Your task to perform on an android device: turn on the 24-hour format for clock Image 0: 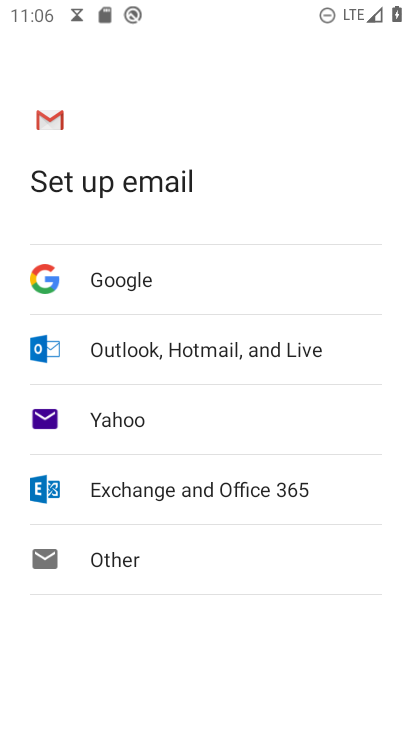
Step 0: press home button
Your task to perform on an android device: turn on the 24-hour format for clock Image 1: 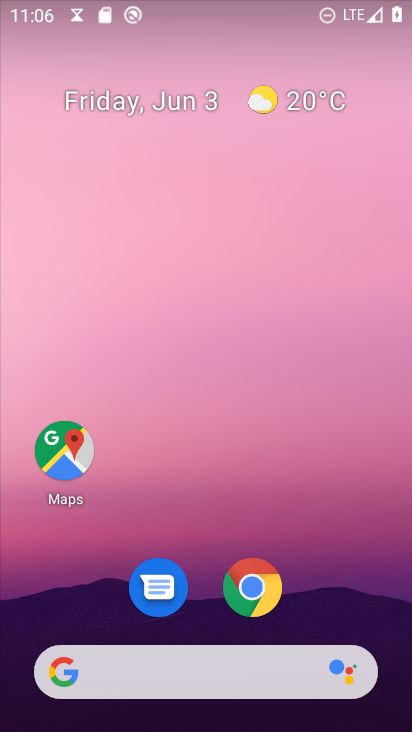
Step 1: drag from (351, 559) to (148, 29)
Your task to perform on an android device: turn on the 24-hour format for clock Image 2: 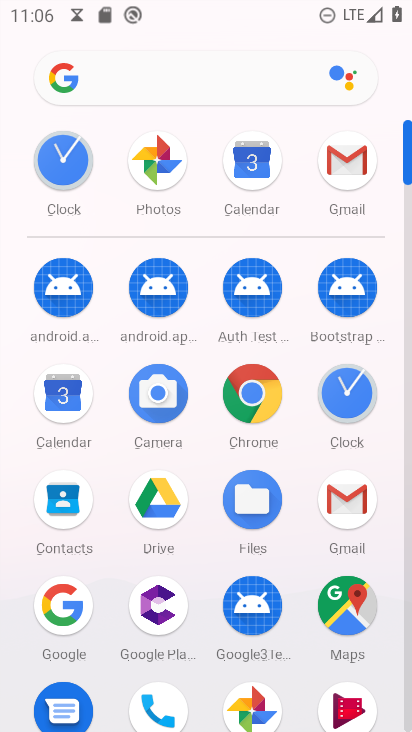
Step 2: click (339, 374)
Your task to perform on an android device: turn on the 24-hour format for clock Image 3: 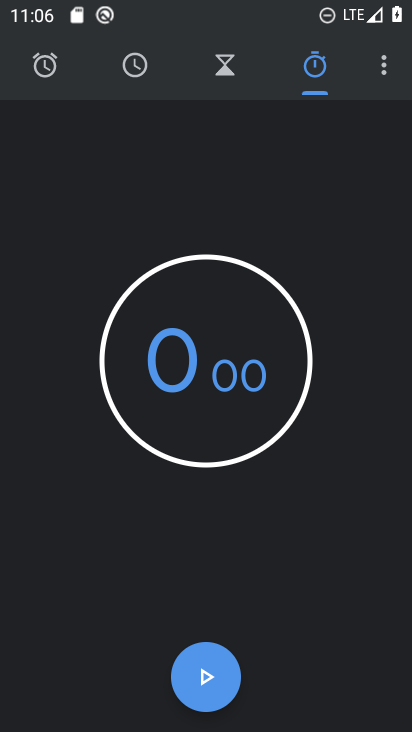
Step 3: click (383, 74)
Your task to perform on an android device: turn on the 24-hour format for clock Image 4: 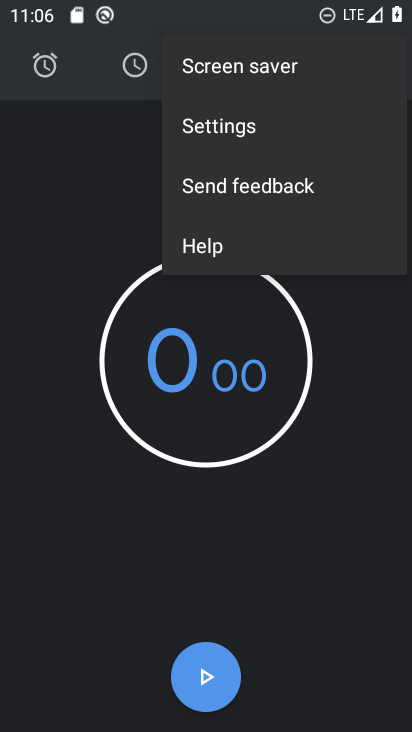
Step 4: click (260, 146)
Your task to perform on an android device: turn on the 24-hour format for clock Image 5: 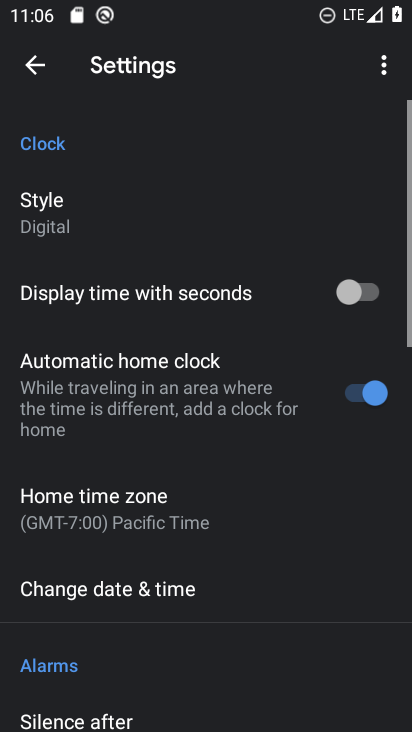
Step 5: click (189, 559)
Your task to perform on an android device: turn on the 24-hour format for clock Image 6: 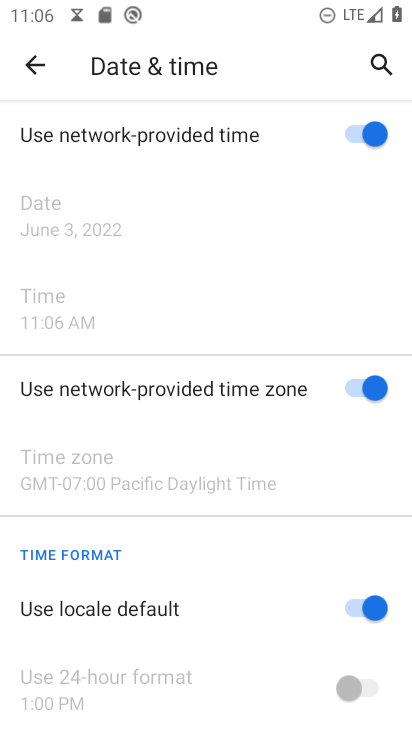
Step 6: click (355, 614)
Your task to perform on an android device: turn on the 24-hour format for clock Image 7: 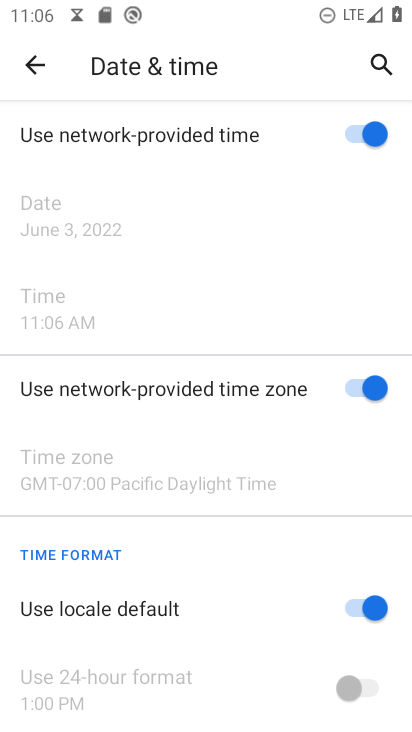
Step 7: click (342, 698)
Your task to perform on an android device: turn on the 24-hour format for clock Image 8: 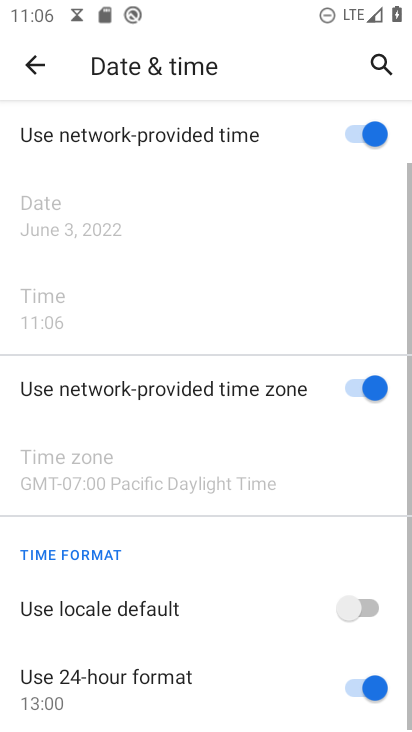
Step 8: task complete